Your task to perform on an android device: turn off data saver in the chrome app Image 0: 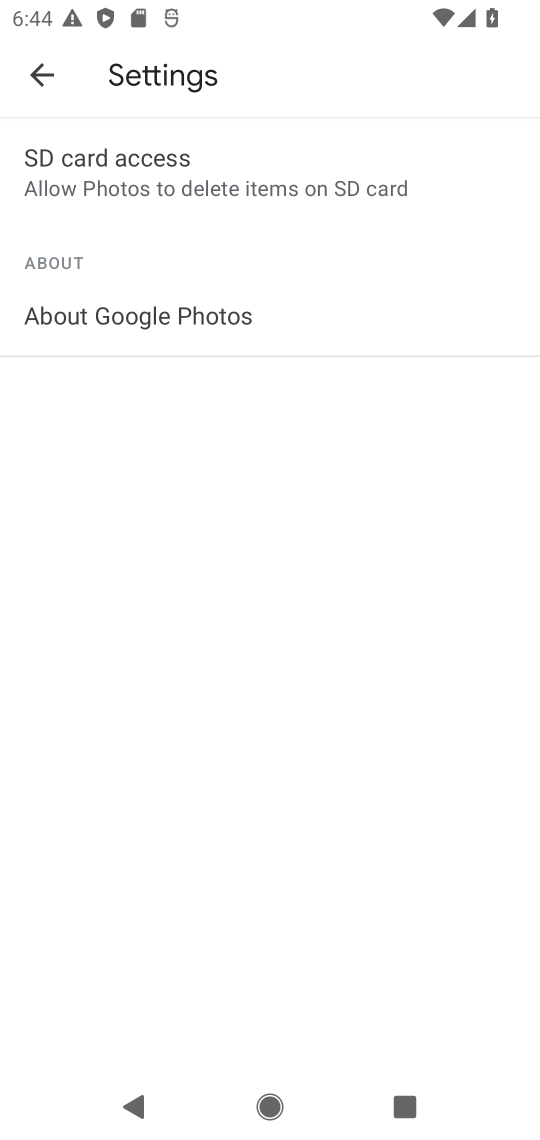
Step 0: task impossible